Your task to perform on an android device: turn on showing notifications on the lock screen Image 0: 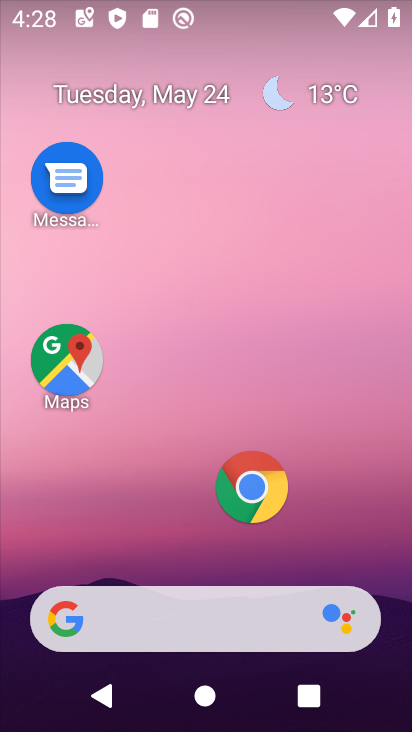
Step 0: drag from (217, 527) to (222, 345)
Your task to perform on an android device: turn on showing notifications on the lock screen Image 1: 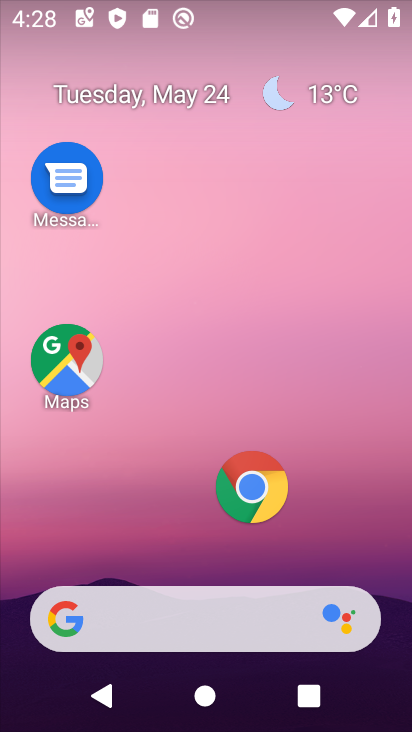
Step 1: drag from (124, 546) to (232, 31)
Your task to perform on an android device: turn on showing notifications on the lock screen Image 2: 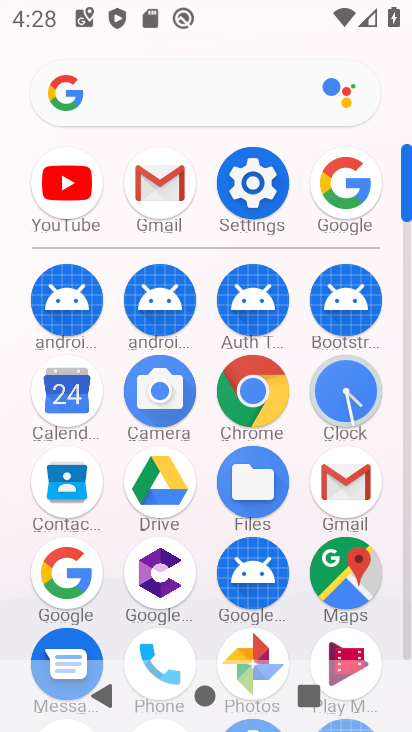
Step 2: click (249, 188)
Your task to perform on an android device: turn on showing notifications on the lock screen Image 3: 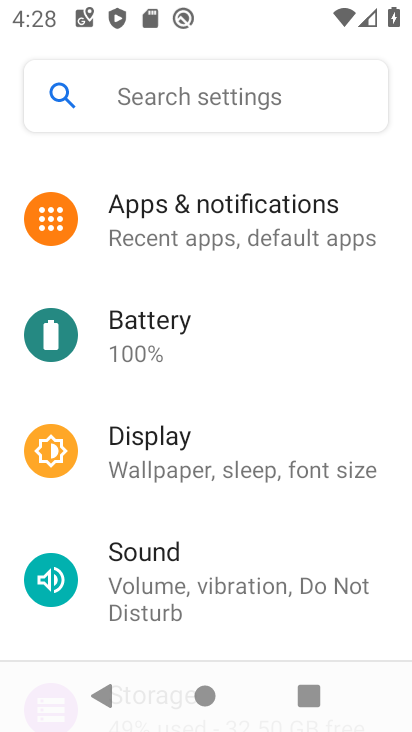
Step 3: click (159, 245)
Your task to perform on an android device: turn on showing notifications on the lock screen Image 4: 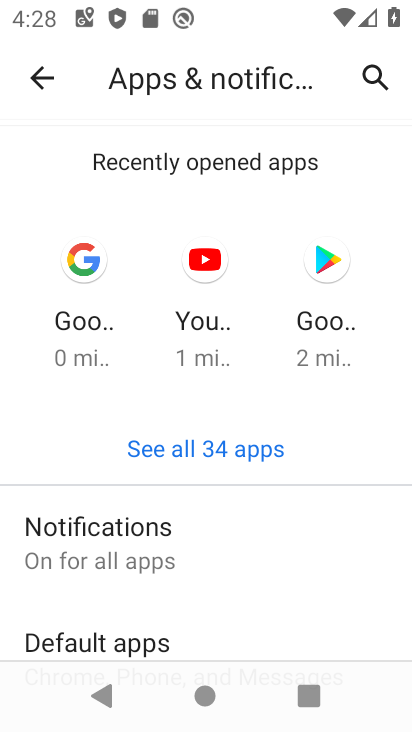
Step 4: click (169, 543)
Your task to perform on an android device: turn on showing notifications on the lock screen Image 5: 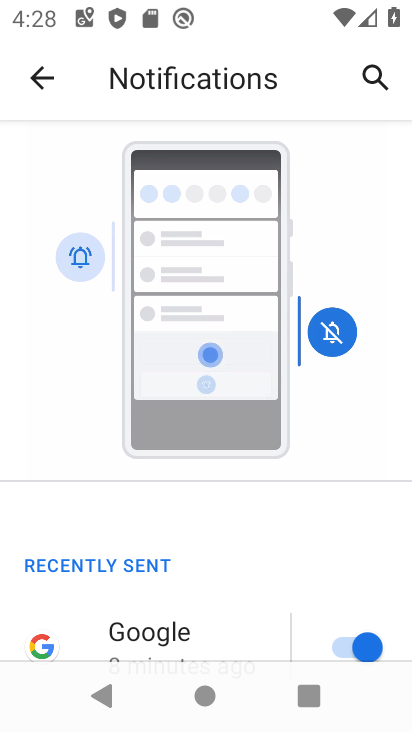
Step 5: drag from (217, 544) to (286, 131)
Your task to perform on an android device: turn on showing notifications on the lock screen Image 6: 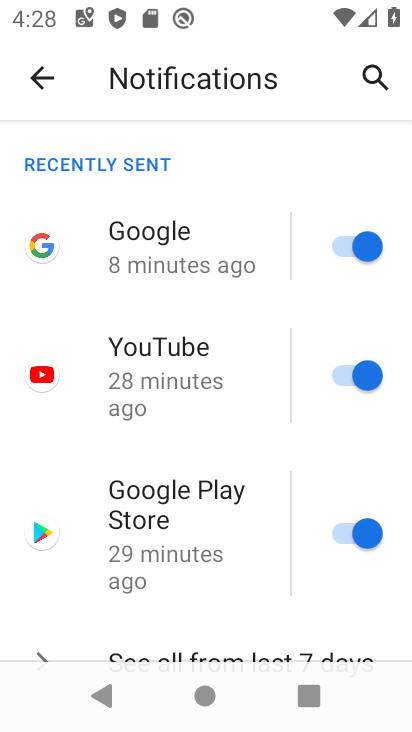
Step 6: drag from (200, 554) to (116, 169)
Your task to perform on an android device: turn on showing notifications on the lock screen Image 7: 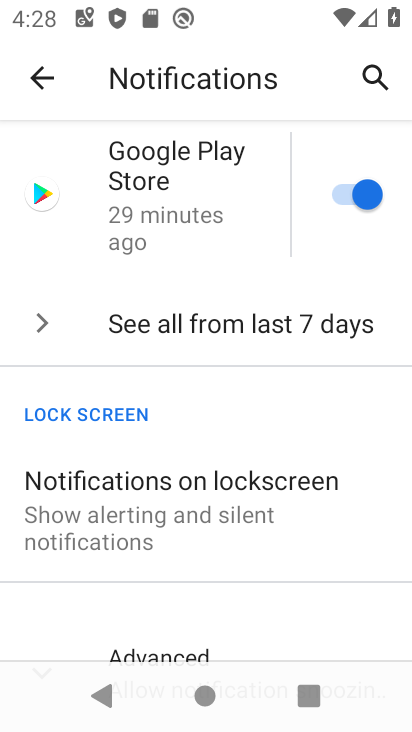
Step 7: click (122, 531)
Your task to perform on an android device: turn on showing notifications on the lock screen Image 8: 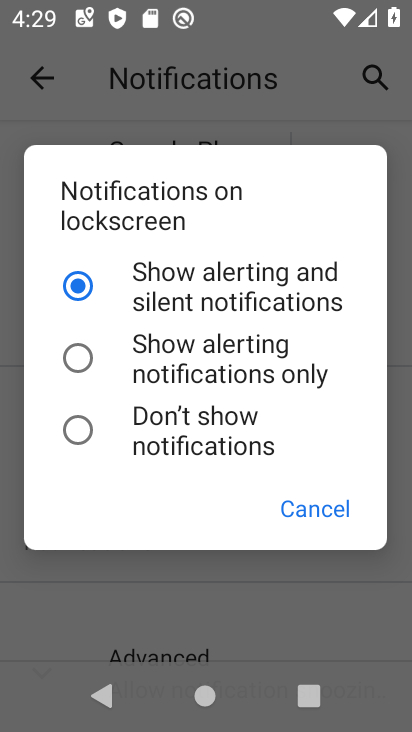
Step 8: task complete